Your task to perform on an android device: Open calendar and show me the first week of next month Image 0: 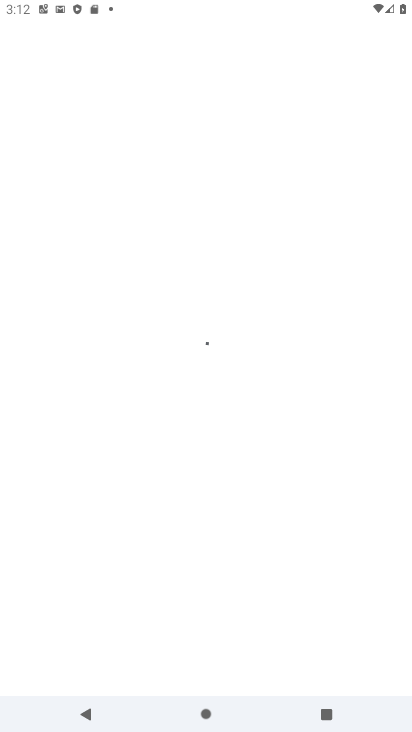
Step 0: press home button
Your task to perform on an android device: Open calendar and show me the first week of next month Image 1: 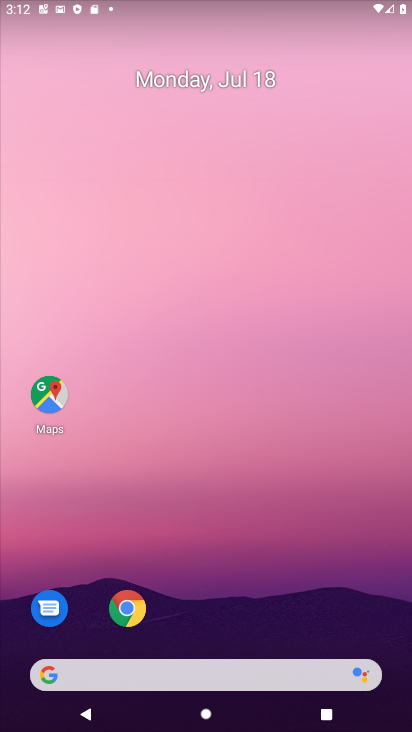
Step 1: drag from (284, 636) to (332, 211)
Your task to perform on an android device: Open calendar and show me the first week of next month Image 2: 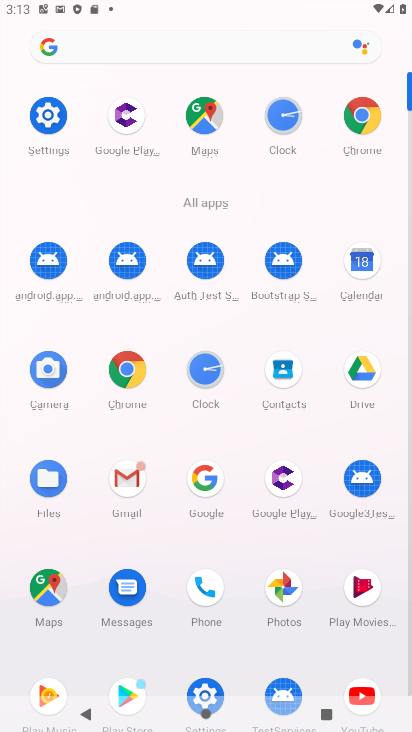
Step 2: click (371, 278)
Your task to perform on an android device: Open calendar and show me the first week of next month Image 3: 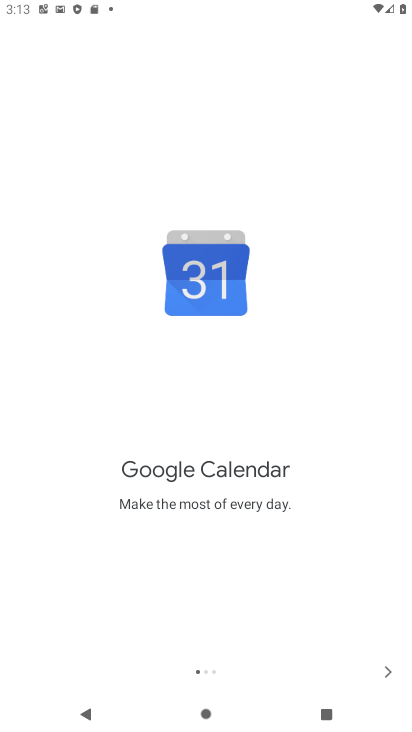
Step 3: click (388, 677)
Your task to perform on an android device: Open calendar and show me the first week of next month Image 4: 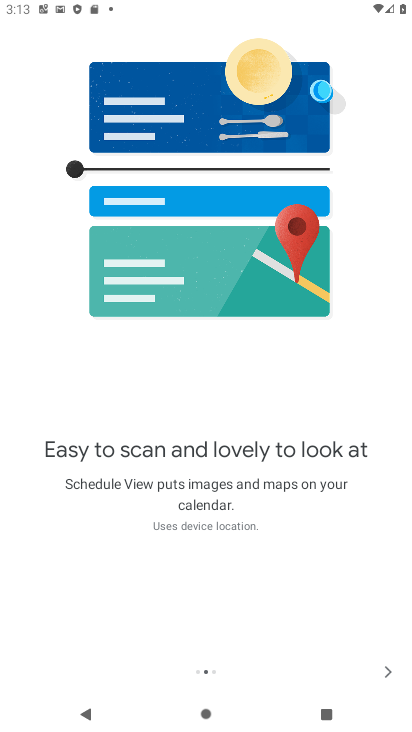
Step 4: click (388, 672)
Your task to perform on an android device: Open calendar and show me the first week of next month Image 5: 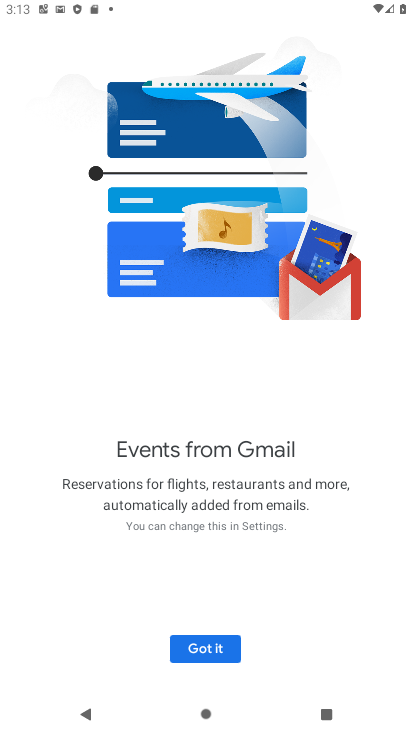
Step 5: click (214, 646)
Your task to perform on an android device: Open calendar and show me the first week of next month Image 6: 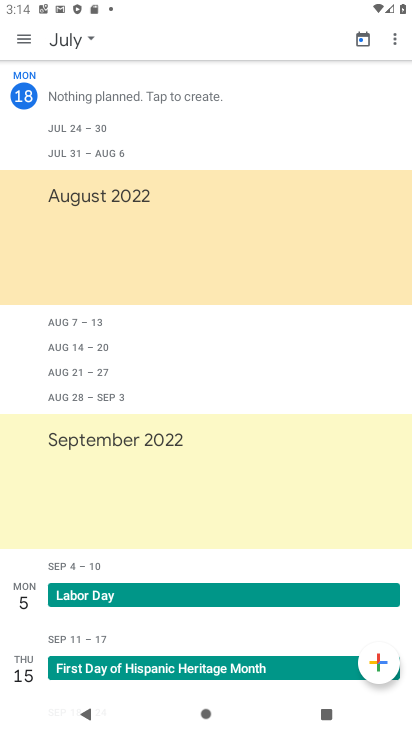
Step 6: click (78, 45)
Your task to perform on an android device: Open calendar and show me the first week of next month Image 7: 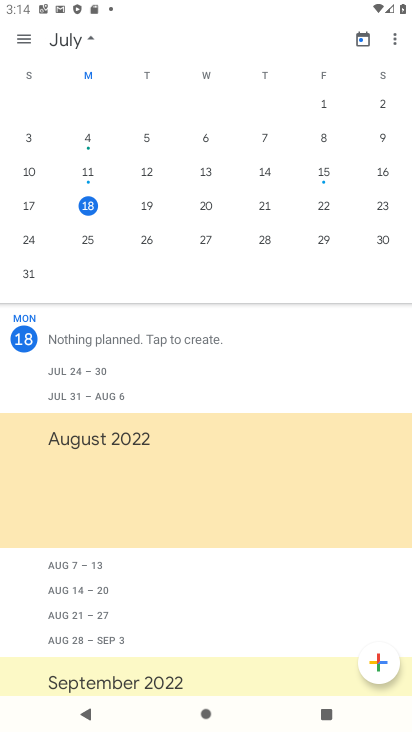
Step 7: drag from (299, 212) to (8, 182)
Your task to perform on an android device: Open calendar and show me the first week of next month Image 8: 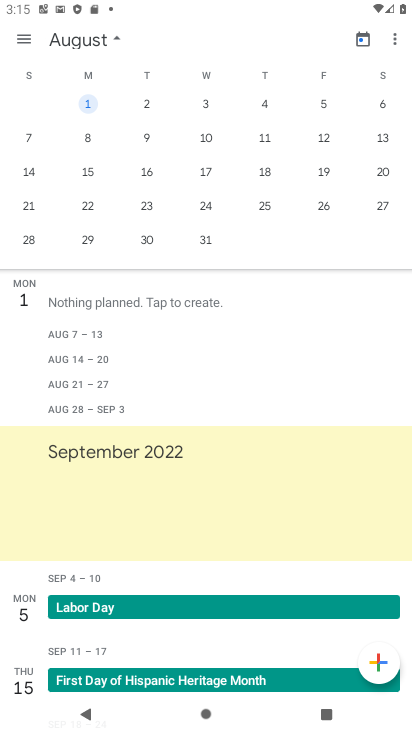
Step 8: click (91, 111)
Your task to perform on an android device: Open calendar and show me the first week of next month Image 9: 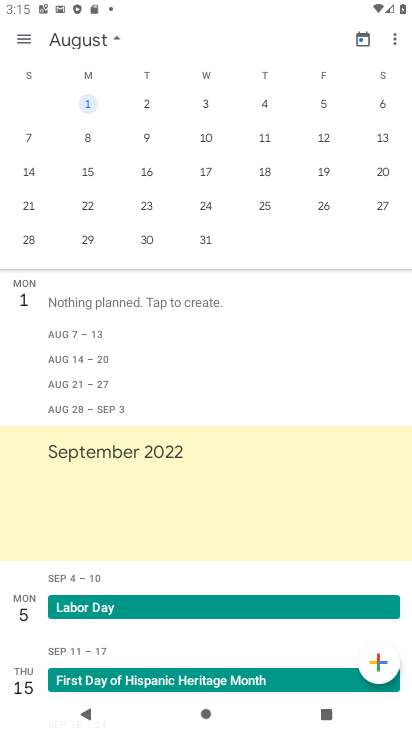
Step 9: task complete